Your task to perform on an android device: change notifications settings Image 0: 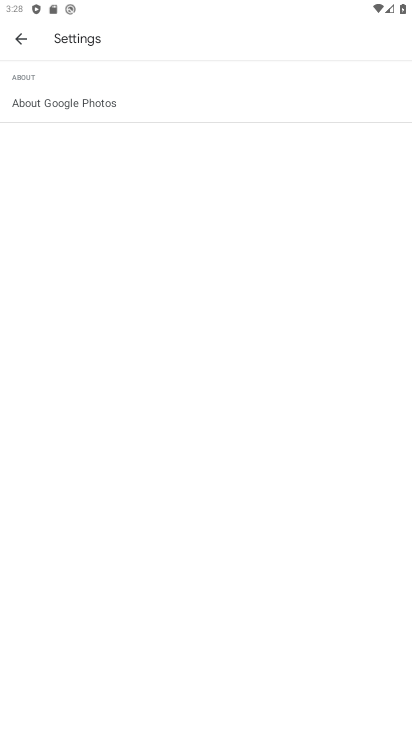
Step 0: press home button
Your task to perform on an android device: change notifications settings Image 1: 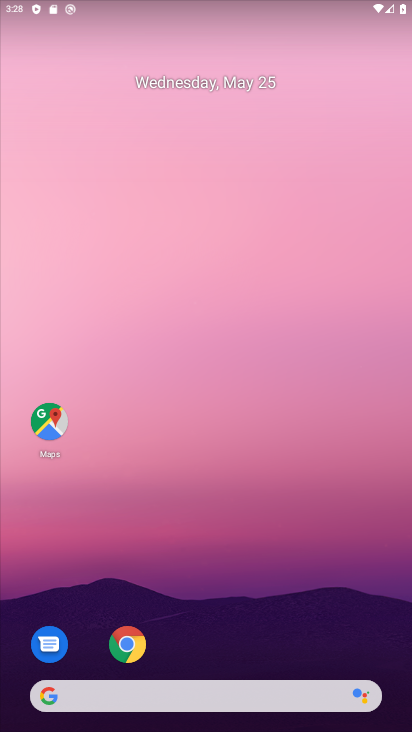
Step 1: drag from (268, 651) to (280, 17)
Your task to perform on an android device: change notifications settings Image 2: 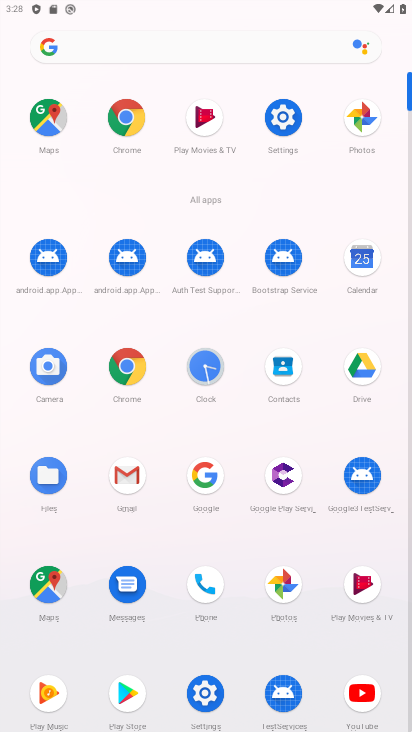
Step 2: click (276, 129)
Your task to perform on an android device: change notifications settings Image 3: 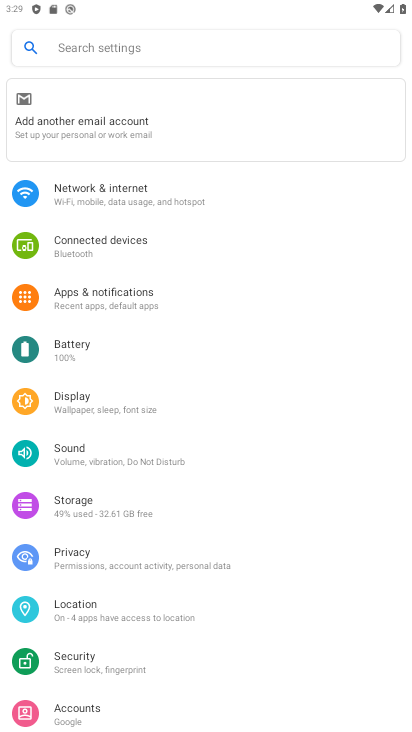
Step 3: click (106, 301)
Your task to perform on an android device: change notifications settings Image 4: 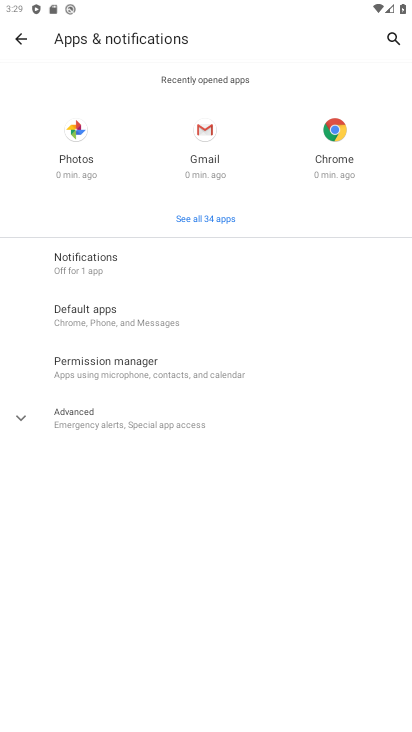
Step 4: click (66, 268)
Your task to perform on an android device: change notifications settings Image 5: 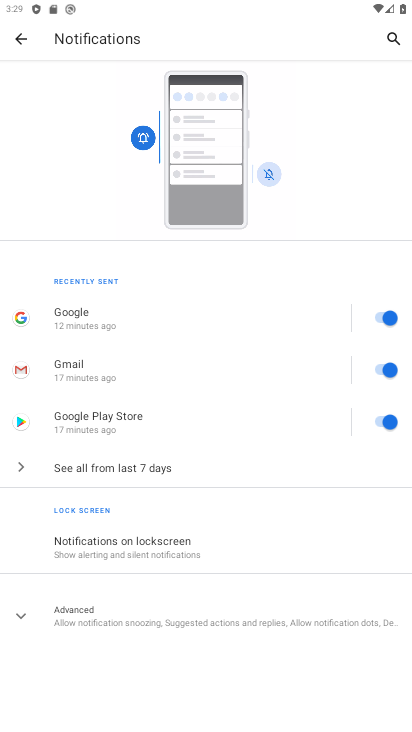
Step 5: click (120, 471)
Your task to perform on an android device: change notifications settings Image 6: 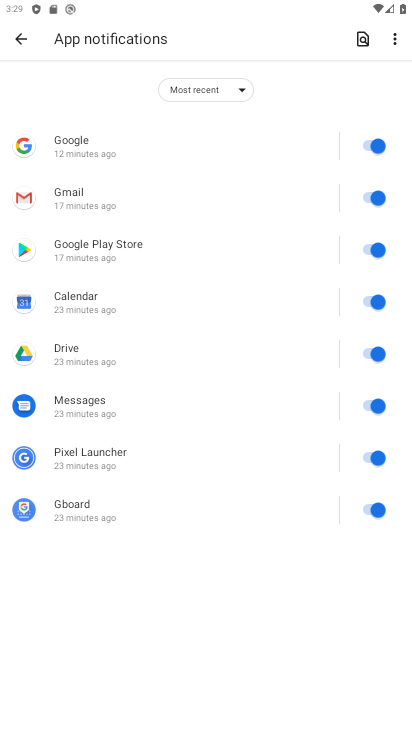
Step 6: click (237, 93)
Your task to perform on an android device: change notifications settings Image 7: 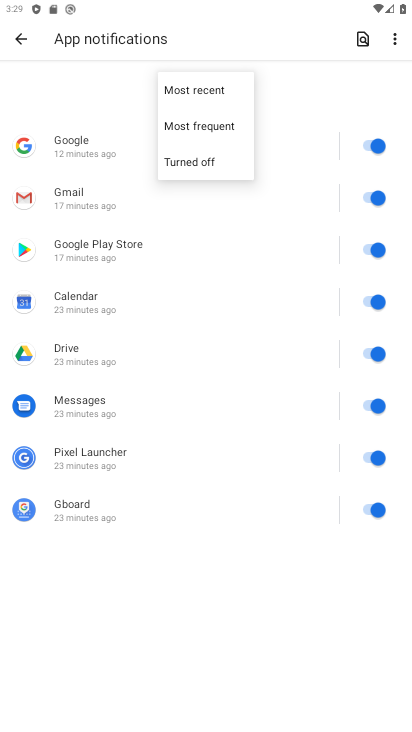
Step 7: click (209, 124)
Your task to perform on an android device: change notifications settings Image 8: 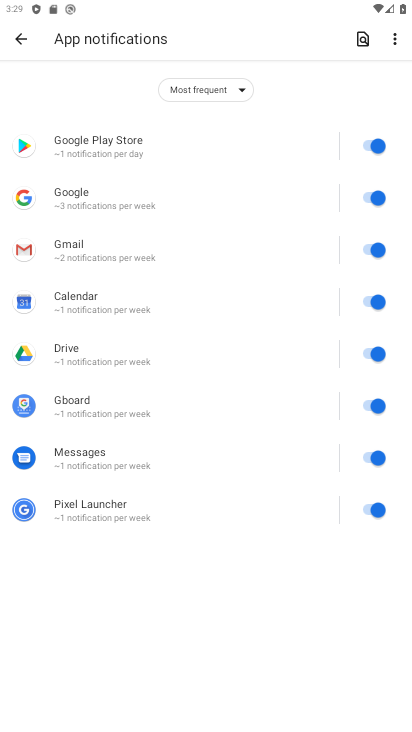
Step 8: task complete